Your task to perform on an android device: Open privacy settings Image 0: 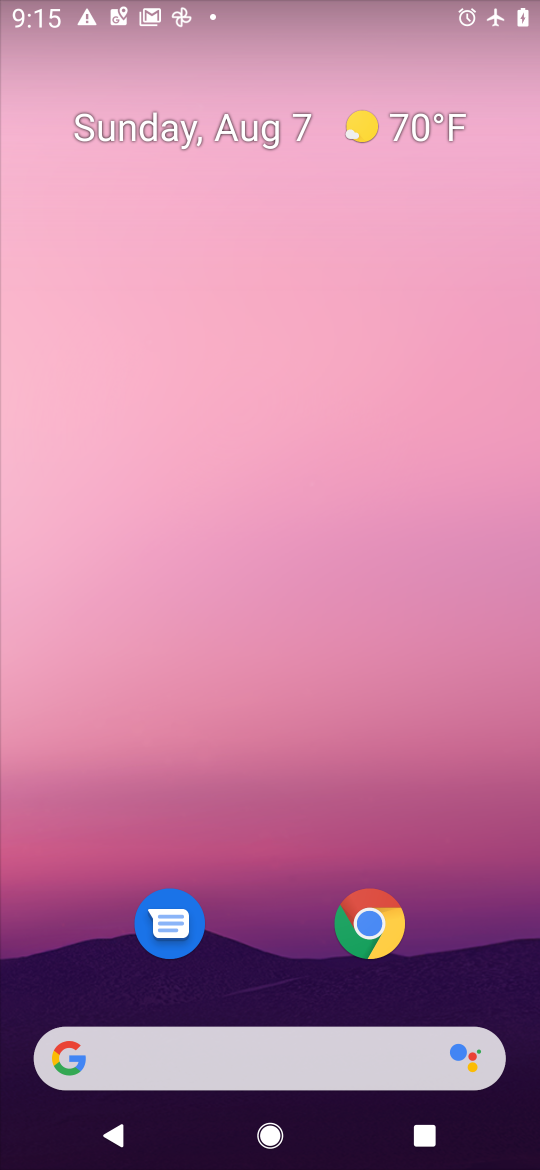
Step 0: drag from (510, 979) to (226, 72)
Your task to perform on an android device: Open privacy settings Image 1: 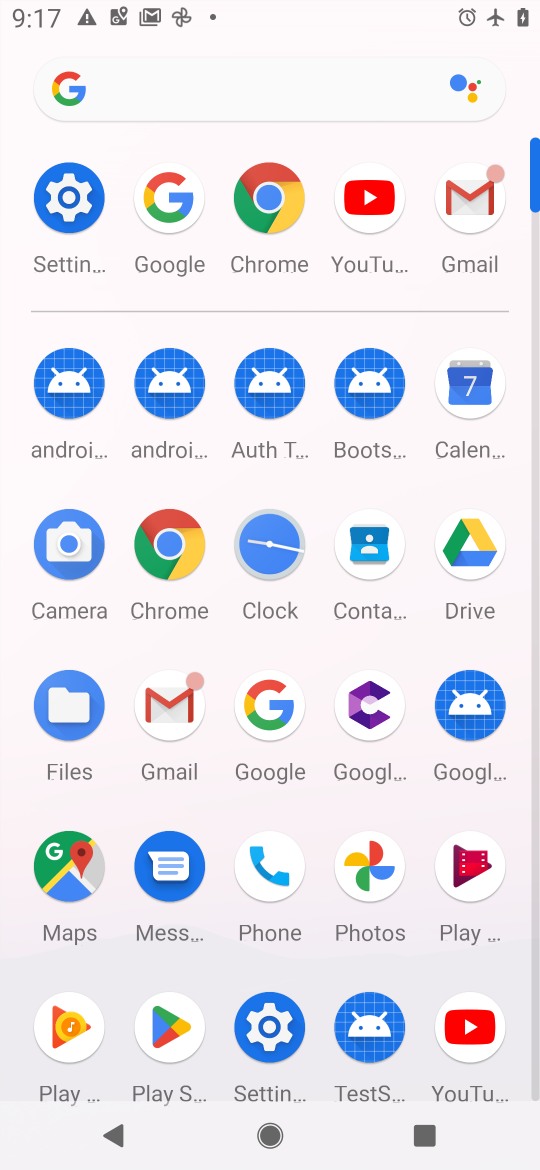
Step 1: click (287, 1040)
Your task to perform on an android device: Open privacy settings Image 2: 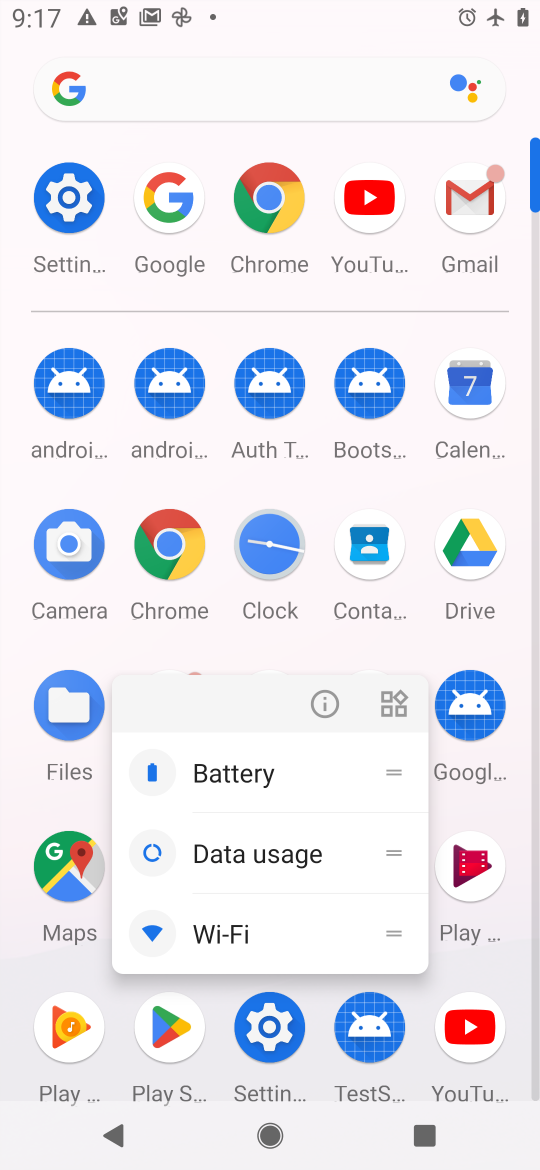
Step 2: click (287, 1040)
Your task to perform on an android device: Open privacy settings Image 3: 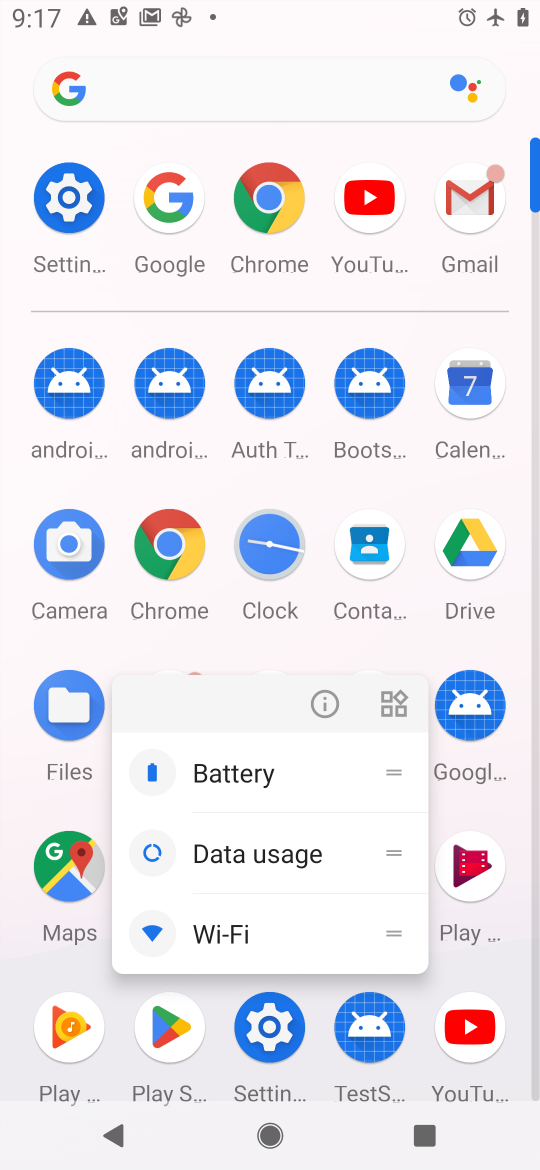
Step 3: click (287, 1040)
Your task to perform on an android device: Open privacy settings Image 4: 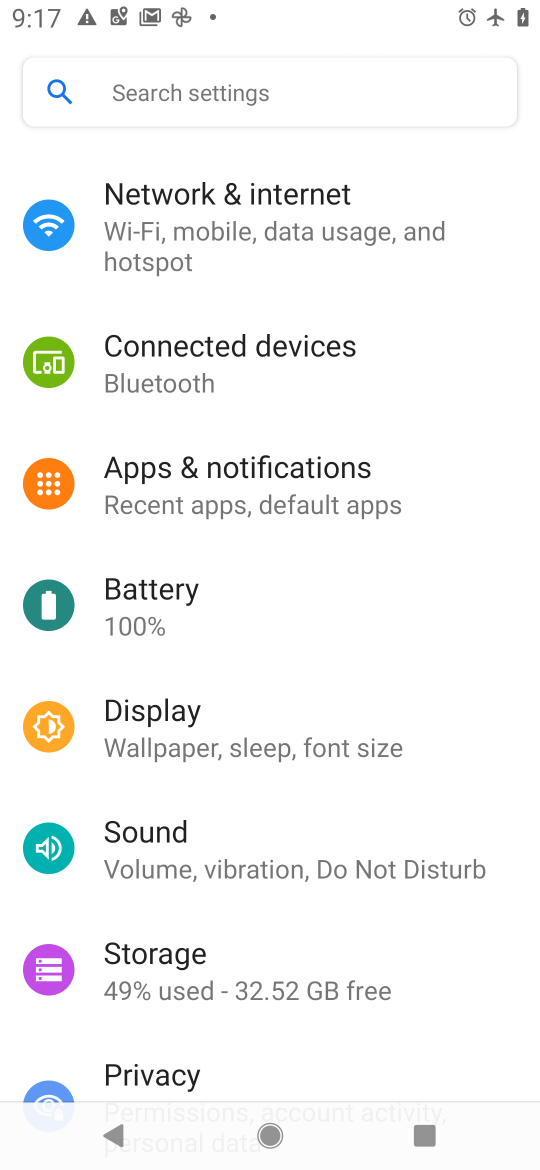
Step 4: click (162, 1074)
Your task to perform on an android device: Open privacy settings Image 5: 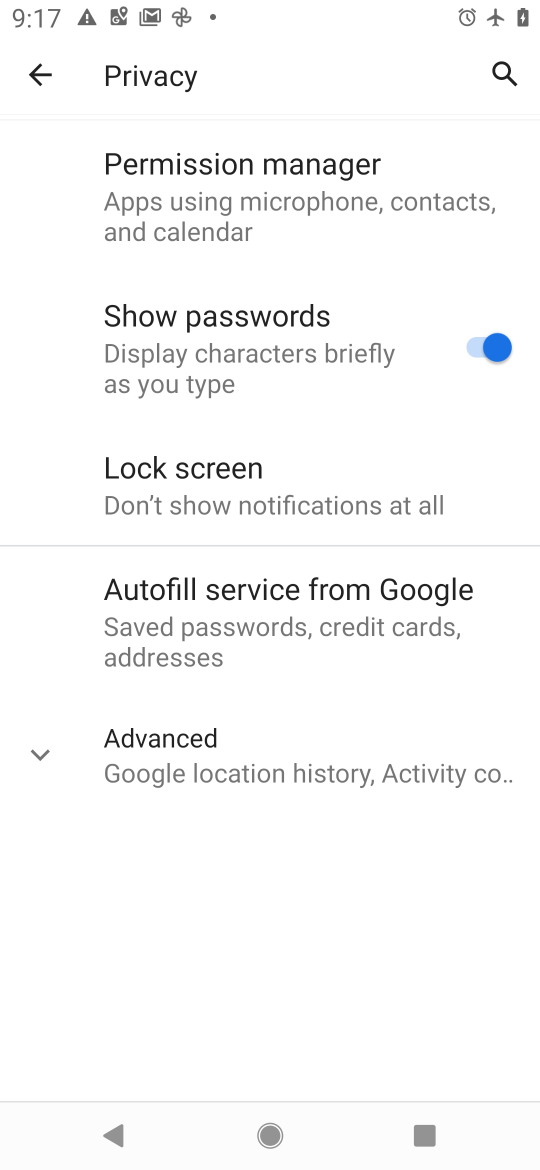
Step 5: task complete